Your task to perform on an android device: find snoozed emails in the gmail app Image 0: 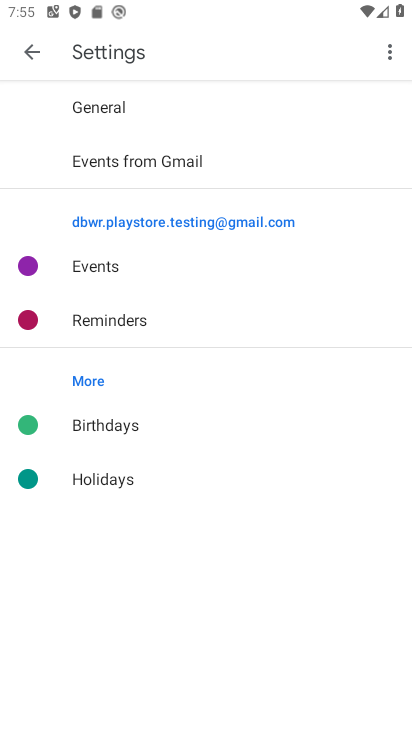
Step 0: press home button
Your task to perform on an android device: find snoozed emails in the gmail app Image 1: 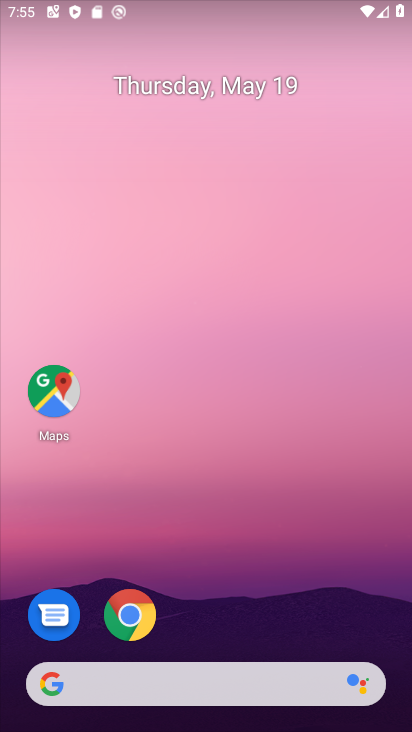
Step 1: drag from (212, 520) to (270, 127)
Your task to perform on an android device: find snoozed emails in the gmail app Image 2: 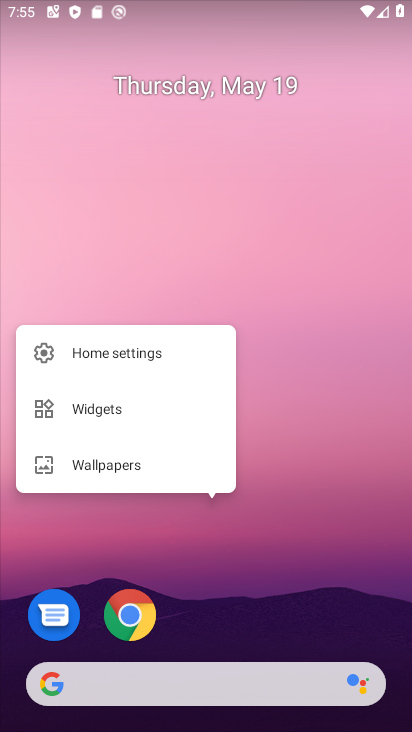
Step 2: click (276, 492)
Your task to perform on an android device: find snoozed emails in the gmail app Image 3: 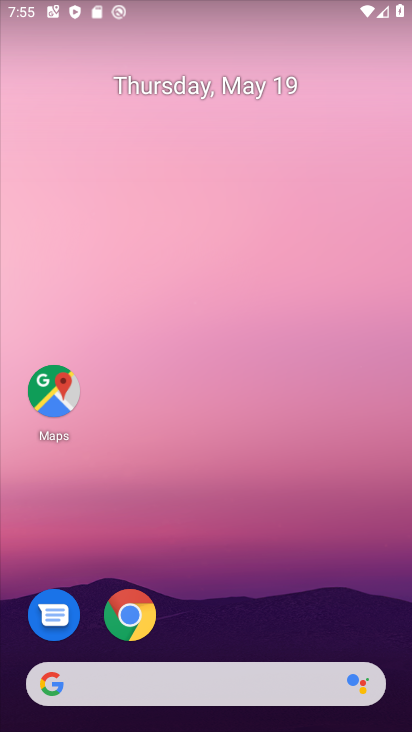
Step 3: drag from (269, 642) to (361, 19)
Your task to perform on an android device: find snoozed emails in the gmail app Image 4: 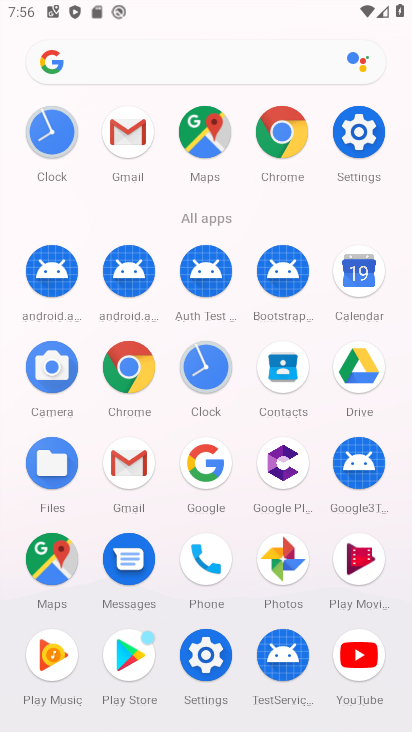
Step 4: click (120, 475)
Your task to perform on an android device: find snoozed emails in the gmail app Image 5: 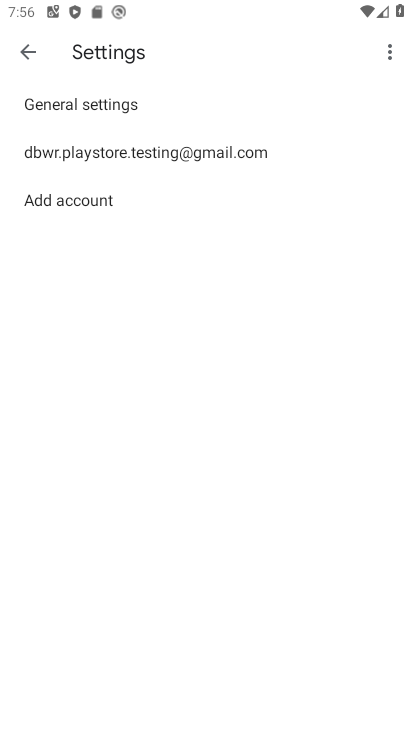
Step 5: click (31, 60)
Your task to perform on an android device: find snoozed emails in the gmail app Image 6: 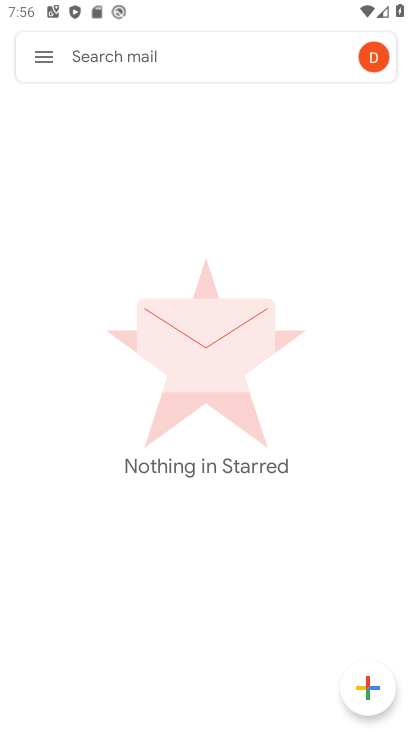
Step 6: click (48, 57)
Your task to perform on an android device: find snoozed emails in the gmail app Image 7: 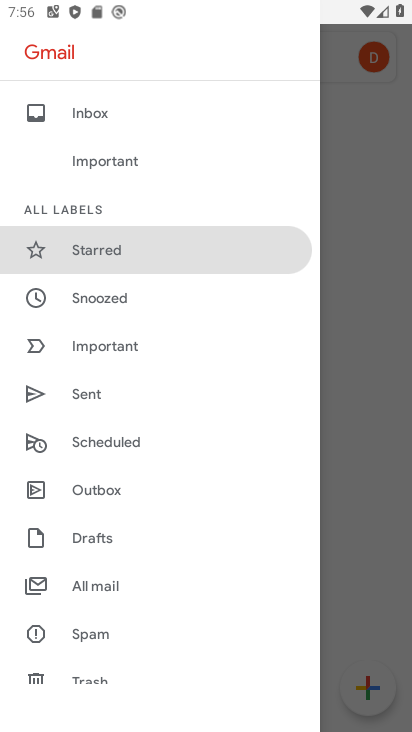
Step 7: click (98, 308)
Your task to perform on an android device: find snoozed emails in the gmail app Image 8: 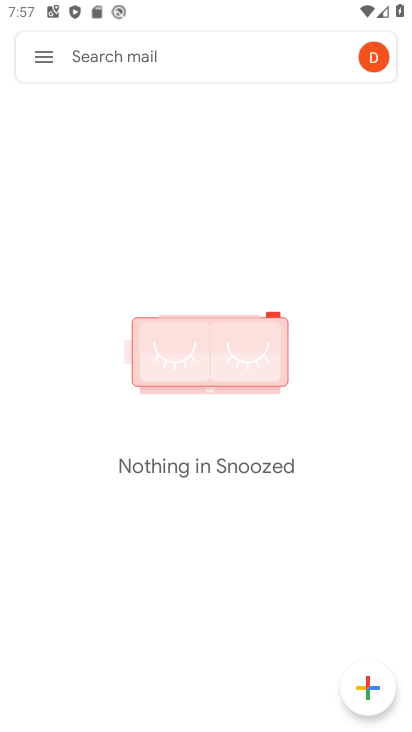
Step 8: task complete